Your task to perform on an android device: Open Google Chrome and click the shortcut for Amazon.com Image 0: 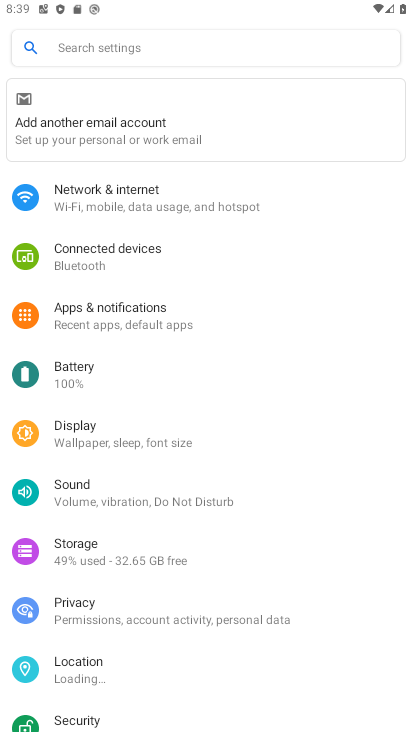
Step 0: press home button
Your task to perform on an android device: Open Google Chrome and click the shortcut for Amazon.com Image 1: 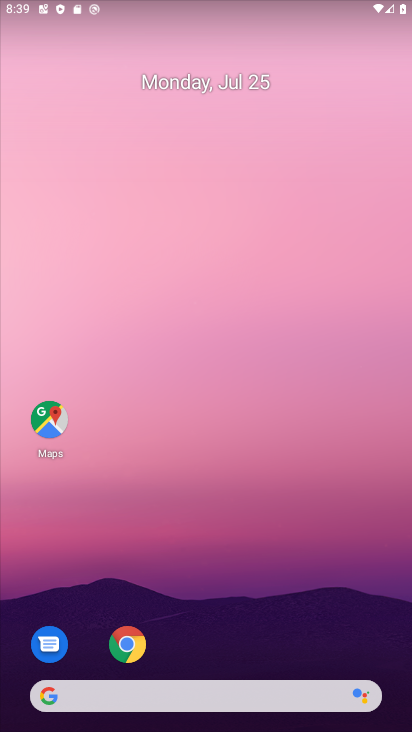
Step 1: click (132, 631)
Your task to perform on an android device: Open Google Chrome and click the shortcut for Amazon.com Image 2: 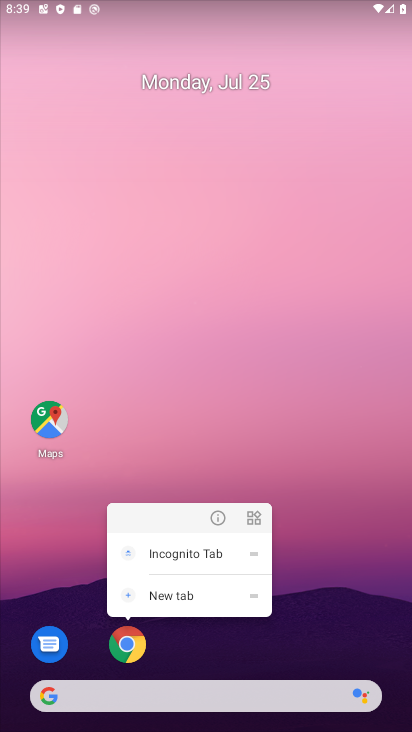
Step 2: click (129, 640)
Your task to perform on an android device: Open Google Chrome and click the shortcut for Amazon.com Image 3: 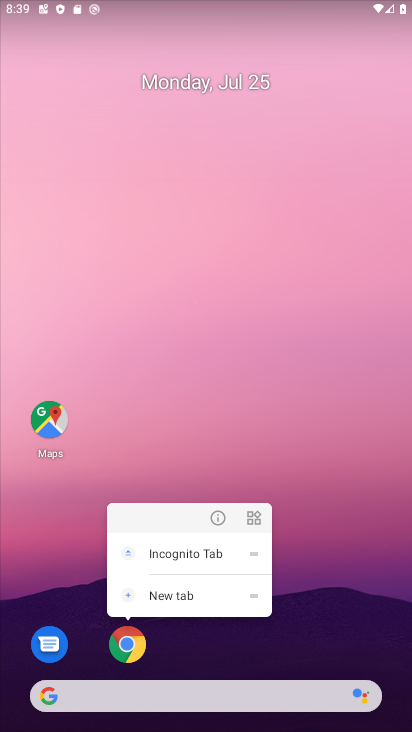
Step 3: click (129, 640)
Your task to perform on an android device: Open Google Chrome and click the shortcut for Amazon.com Image 4: 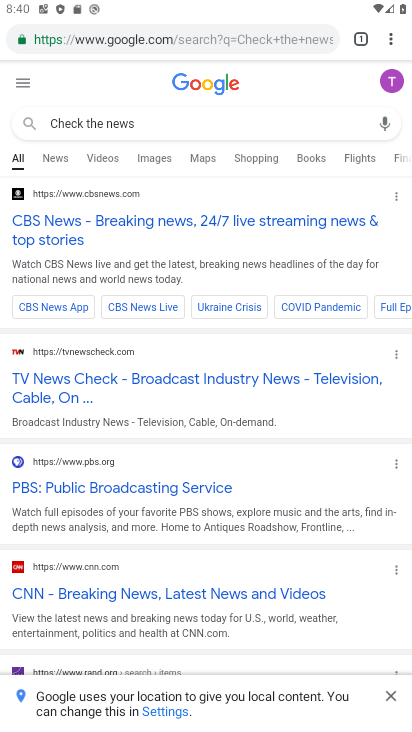
Step 4: drag from (389, 34) to (263, 81)
Your task to perform on an android device: Open Google Chrome and click the shortcut for Amazon.com Image 5: 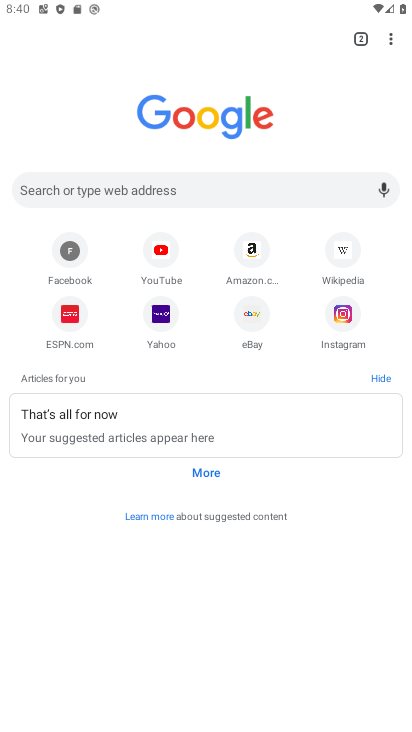
Step 5: click (254, 241)
Your task to perform on an android device: Open Google Chrome and click the shortcut for Amazon.com Image 6: 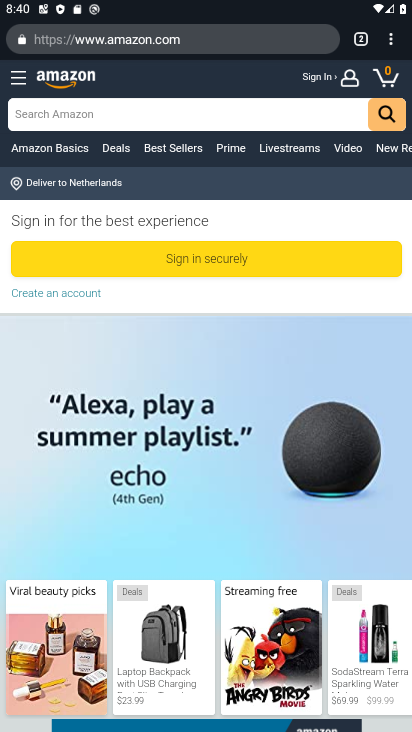
Step 6: task complete